Your task to perform on an android device: check the backup settings in the google photos Image 0: 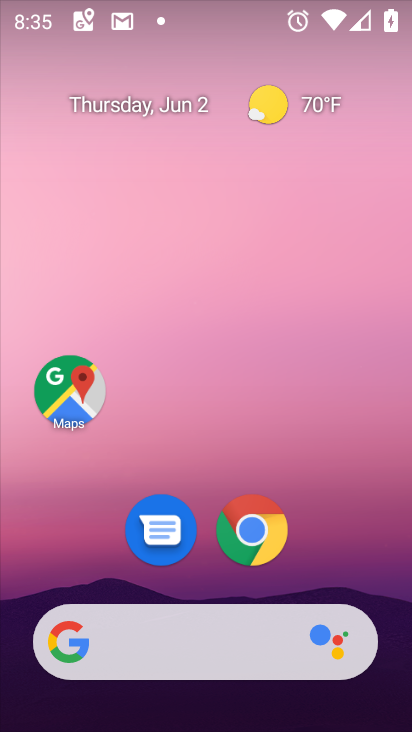
Step 0: drag from (104, 574) to (150, 211)
Your task to perform on an android device: check the backup settings in the google photos Image 1: 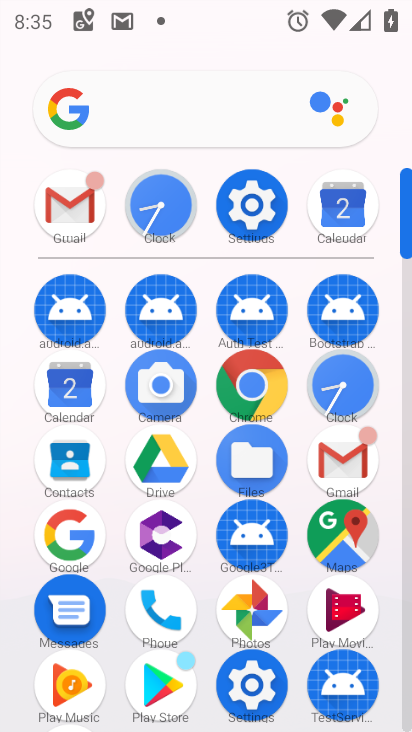
Step 1: click (258, 608)
Your task to perform on an android device: check the backup settings in the google photos Image 2: 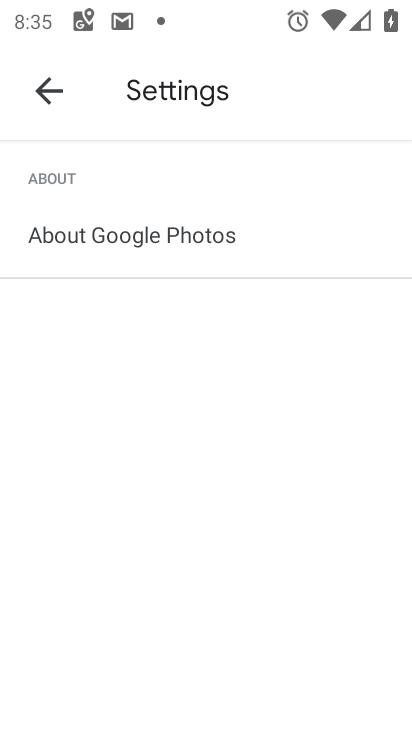
Step 2: click (46, 79)
Your task to perform on an android device: check the backup settings in the google photos Image 3: 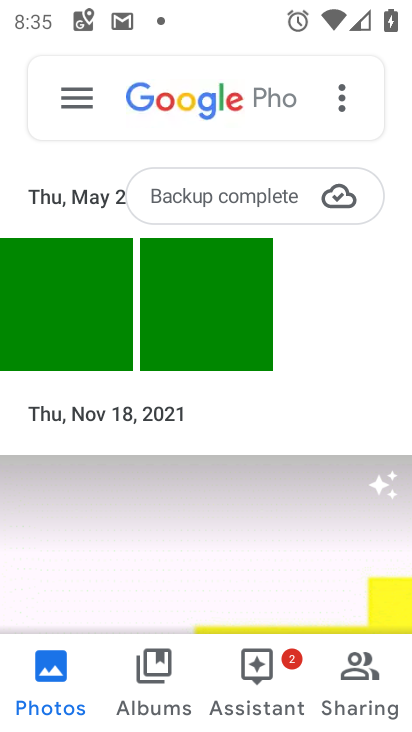
Step 3: click (65, 101)
Your task to perform on an android device: check the backup settings in the google photos Image 4: 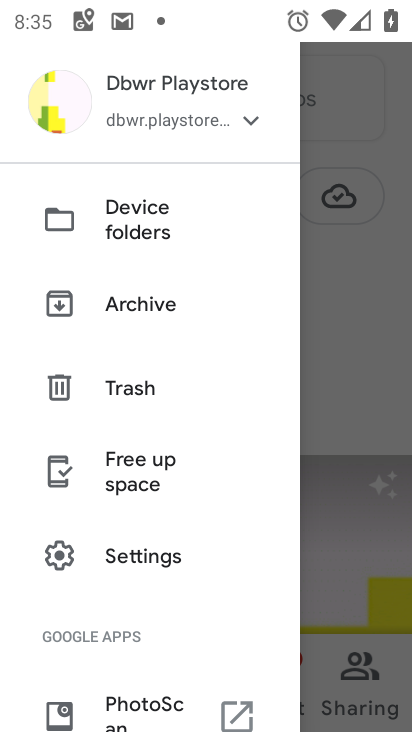
Step 4: click (142, 554)
Your task to perform on an android device: check the backup settings in the google photos Image 5: 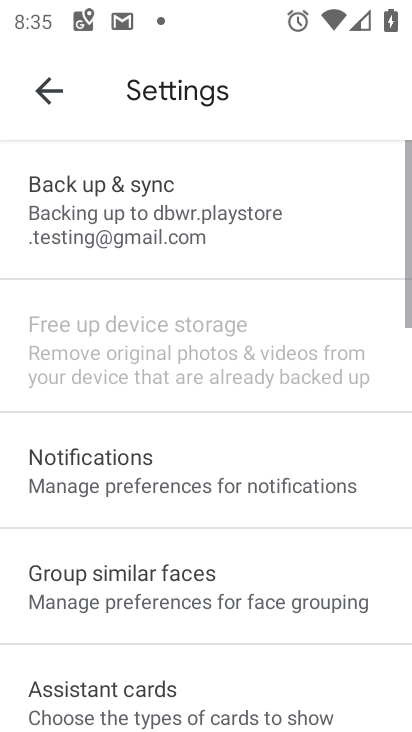
Step 5: click (148, 197)
Your task to perform on an android device: check the backup settings in the google photos Image 6: 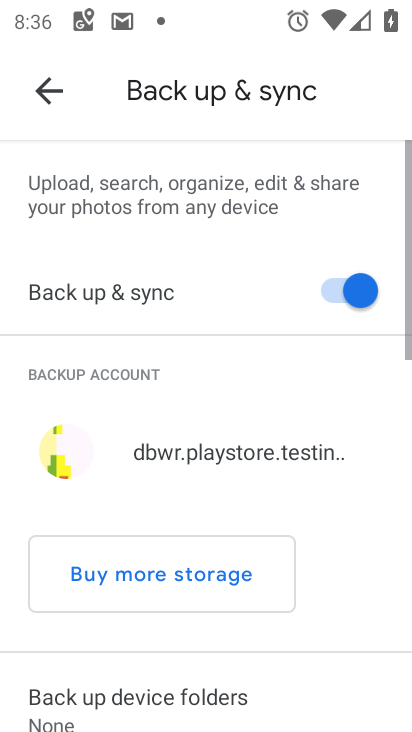
Step 6: task complete